Your task to perform on an android device: change the clock display to show seconds Image 0: 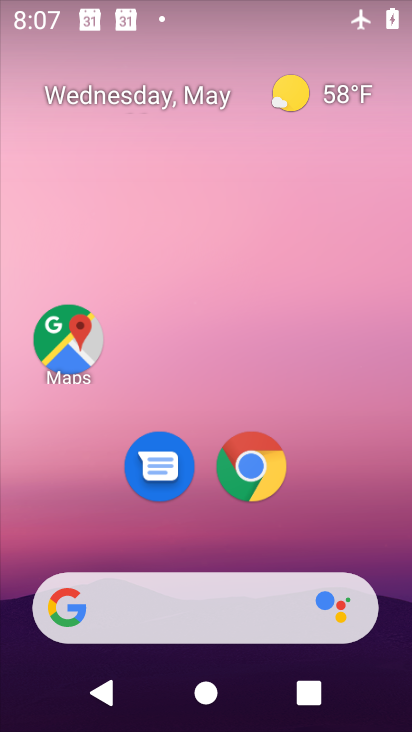
Step 0: drag from (198, 518) to (224, 115)
Your task to perform on an android device: change the clock display to show seconds Image 1: 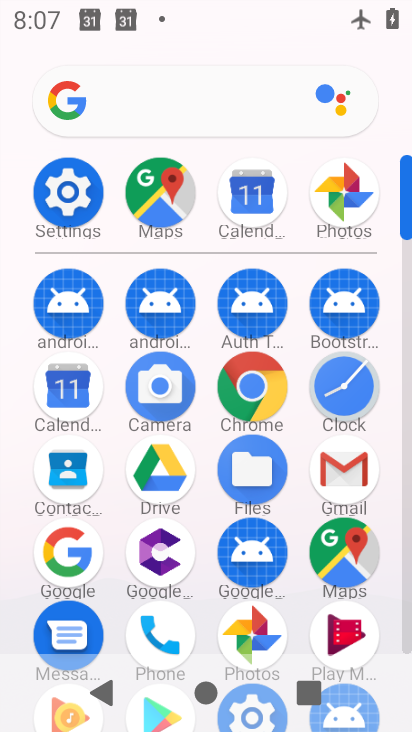
Step 1: click (330, 388)
Your task to perform on an android device: change the clock display to show seconds Image 2: 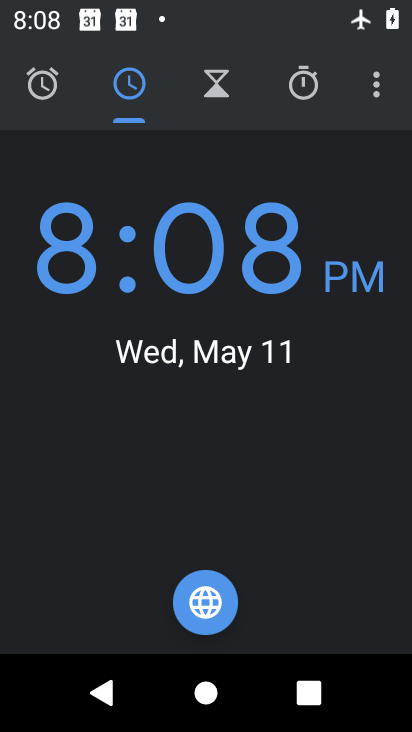
Step 2: click (377, 94)
Your task to perform on an android device: change the clock display to show seconds Image 3: 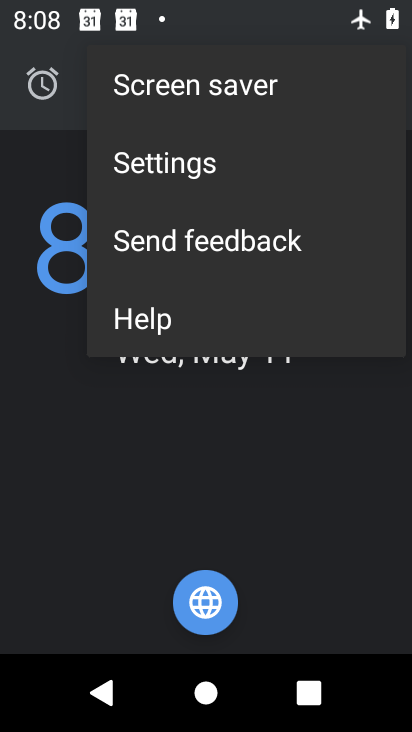
Step 3: click (218, 164)
Your task to perform on an android device: change the clock display to show seconds Image 4: 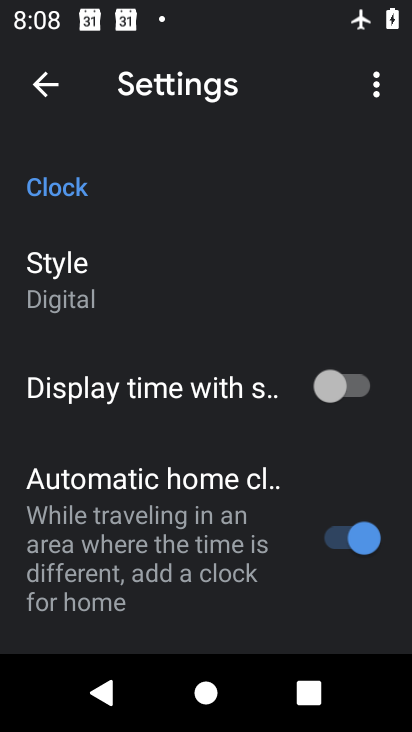
Step 4: click (330, 390)
Your task to perform on an android device: change the clock display to show seconds Image 5: 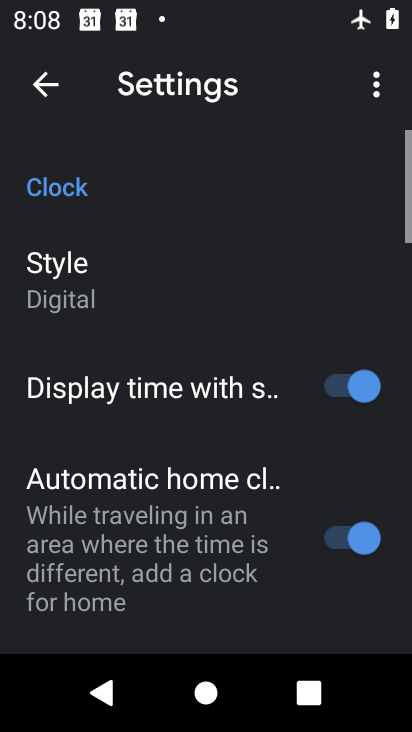
Step 5: task complete